Your task to perform on an android device: check google app version Image 0: 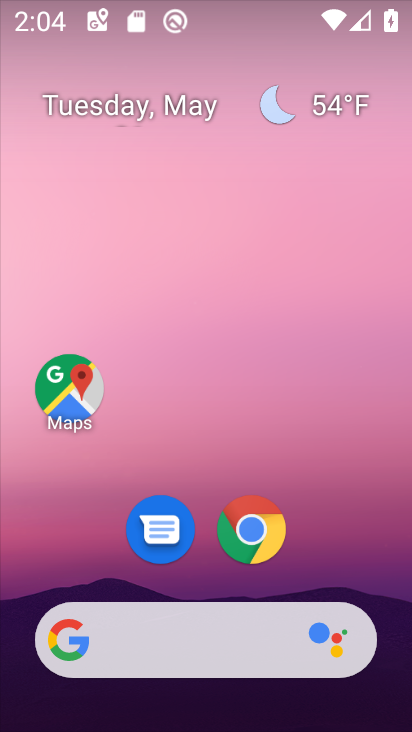
Step 0: drag from (320, 549) to (303, 167)
Your task to perform on an android device: check google app version Image 1: 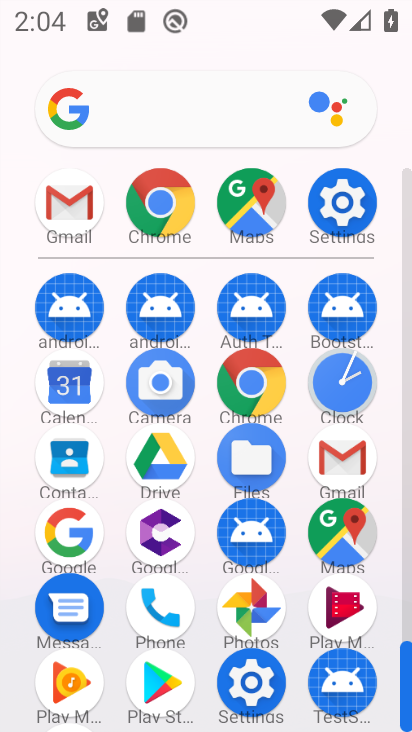
Step 1: click (63, 538)
Your task to perform on an android device: check google app version Image 2: 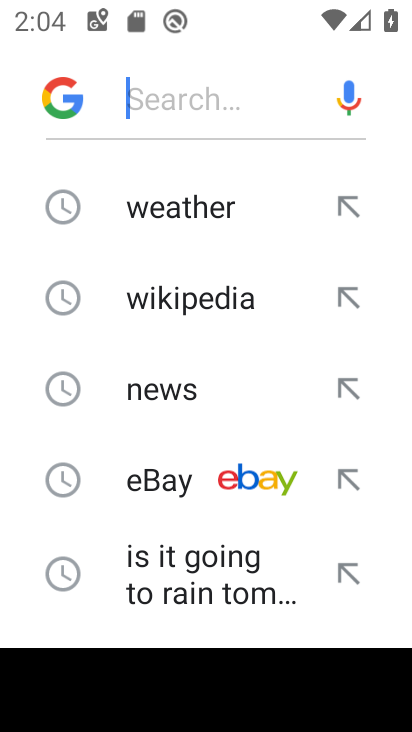
Step 2: click (43, 109)
Your task to perform on an android device: check google app version Image 3: 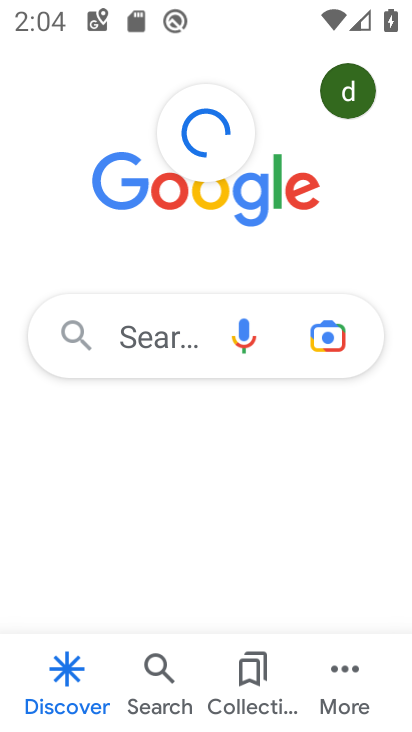
Step 3: click (363, 667)
Your task to perform on an android device: check google app version Image 4: 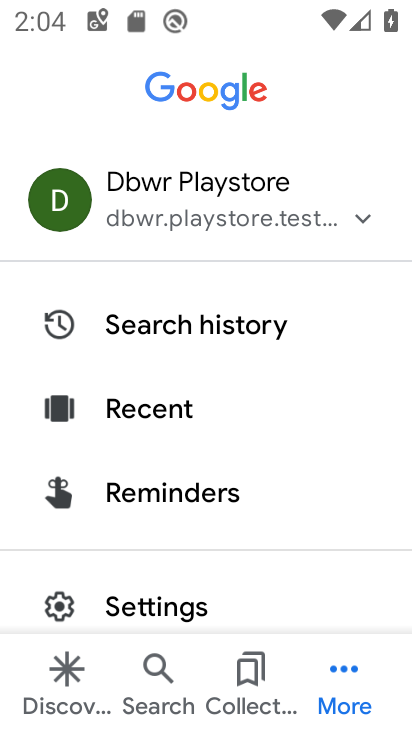
Step 4: drag from (125, 574) to (155, 324)
Your task to perform on an android device: check google app version Image 5: 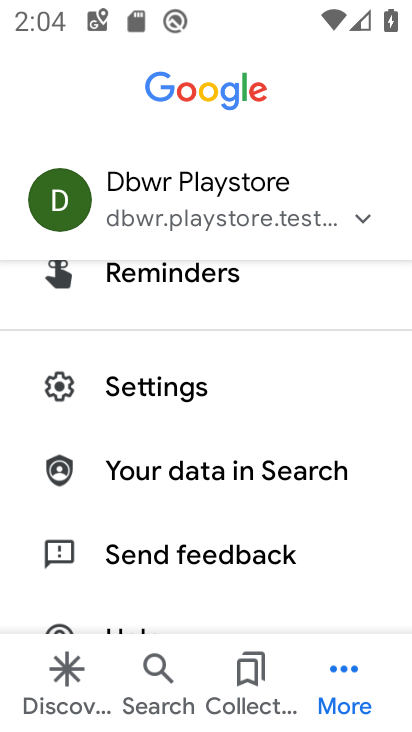
Step 5: drag from (139, 576) to (176, 329)
Your task to perform on an android device: check google app version Image 6: 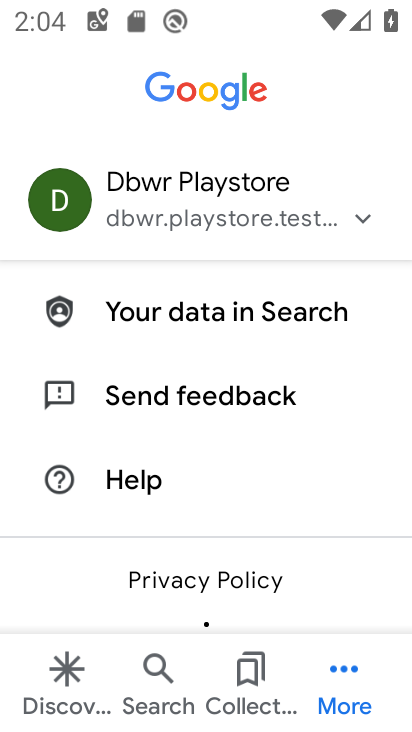
Step 6: drag from (158, 336) to (205, 603)
Your task to perform on an android device: check google app version Image 7: 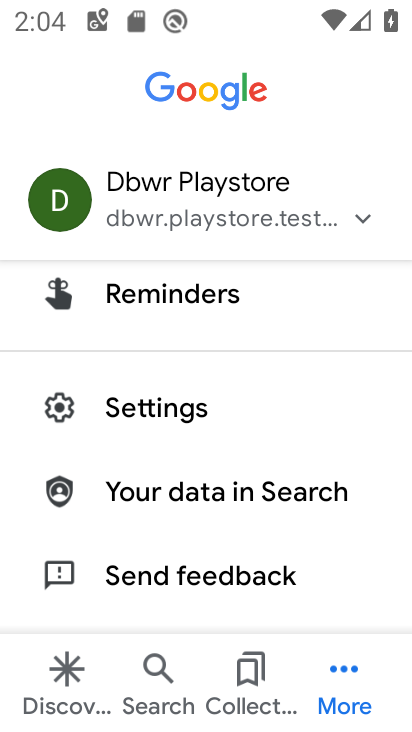
Step 7: click (189, 406)
Your task to perform on an android device: check google app version Image 8: 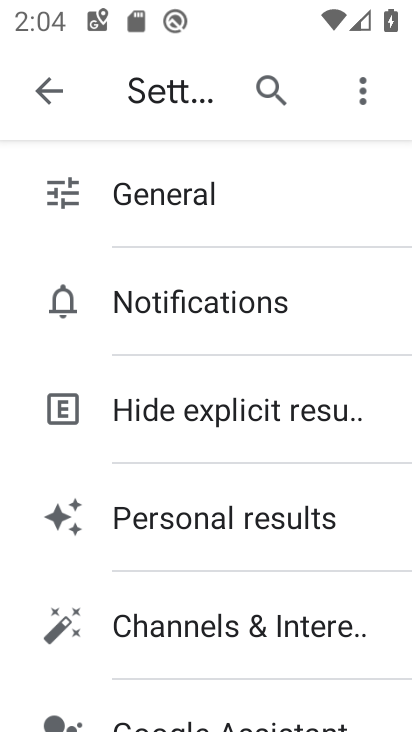
Step 8: drag from (214, 609) to (234, 305)
Your task to perform on an android device: check google app version Image 9: 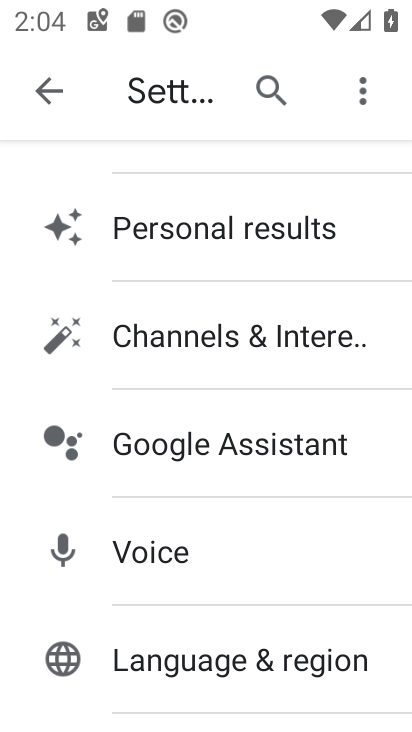
Step 9: drag from (173, 656) to (226, 373)
Your task to perform on an android device: check google app version Image 10: 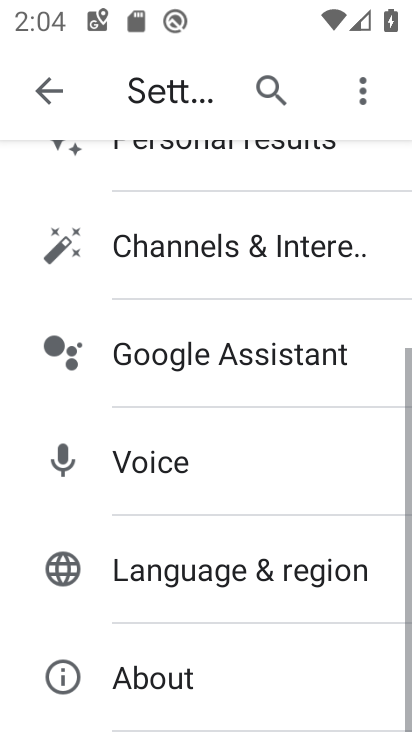
Step 10: click (179, 660)
Your task to perform on an android device: check google app version Image 11: 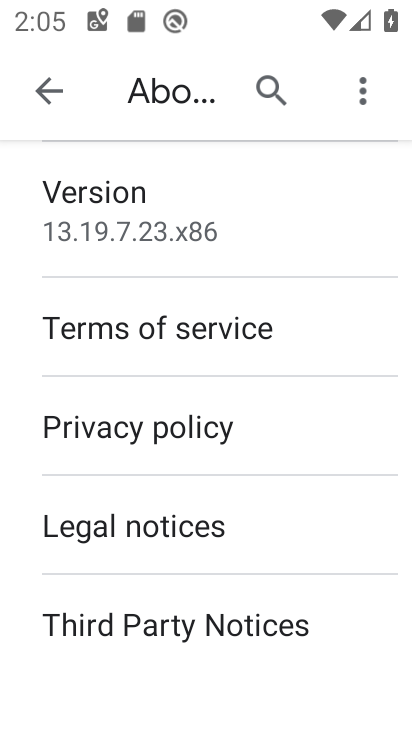
Step 11: task complete